Your task to perform on an android device: add a contact Image 0: 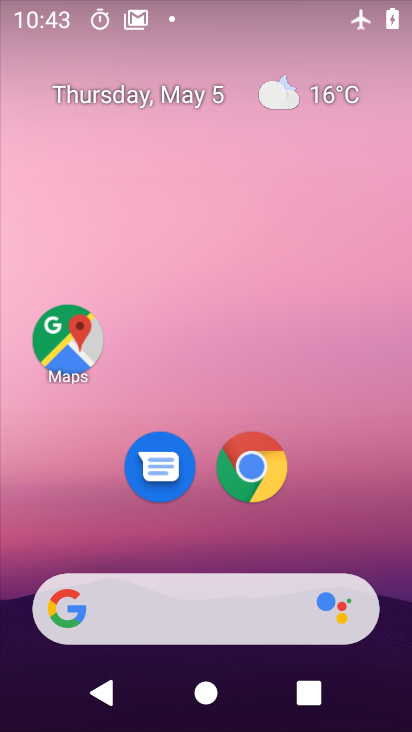
Step 0: drag from (198, 506) to (255, 73)
Your task to perform on an android device: add a contact Image 1: 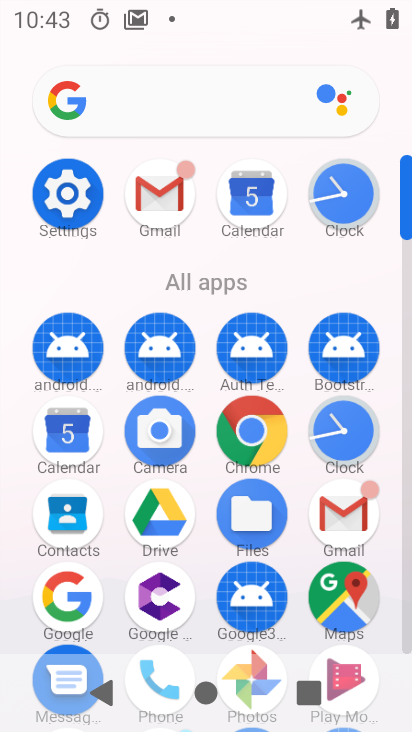
Step 1: click (80, 526)
Your task to perform on an android device: add a contact Image 2: 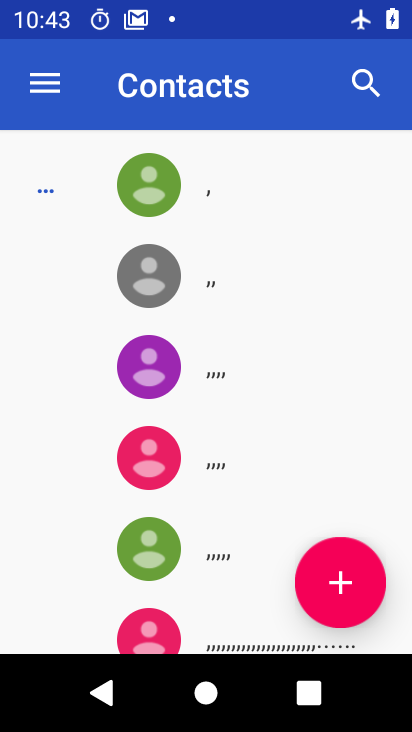
Step 2: click (334, 598)
Your task to perform on an android device: add a contact Image 3: 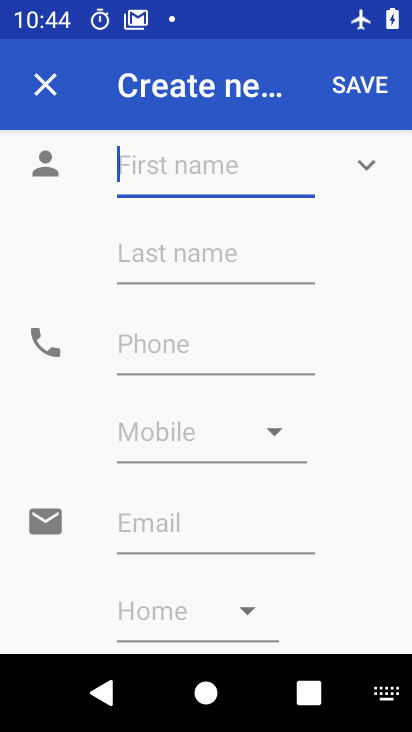
Step 3: type "qwertyuiop"
Your task to perform on an android device: add a contact Image 4: 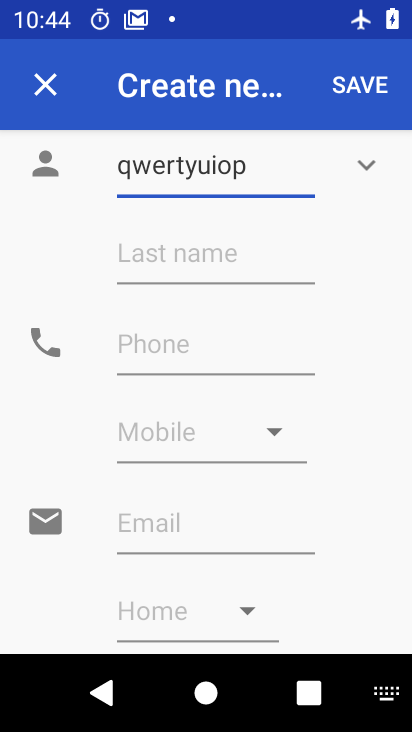
Step 4: click (196, 356)
Your task to perform on an android device: add a contact Image 5: 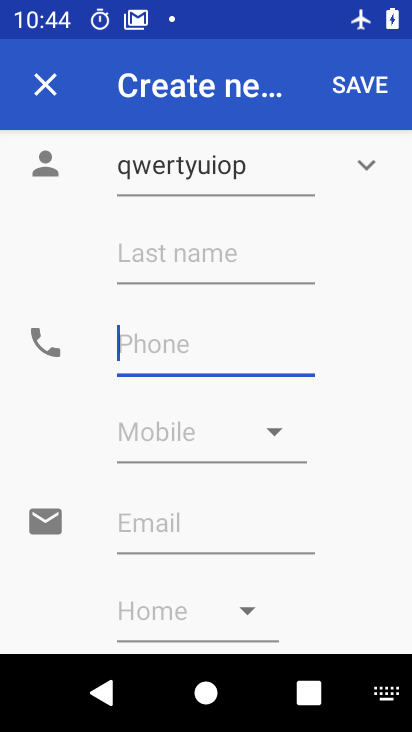
Step 5: type "123456"
Your task to perform on an android device: add a contact Image 6: 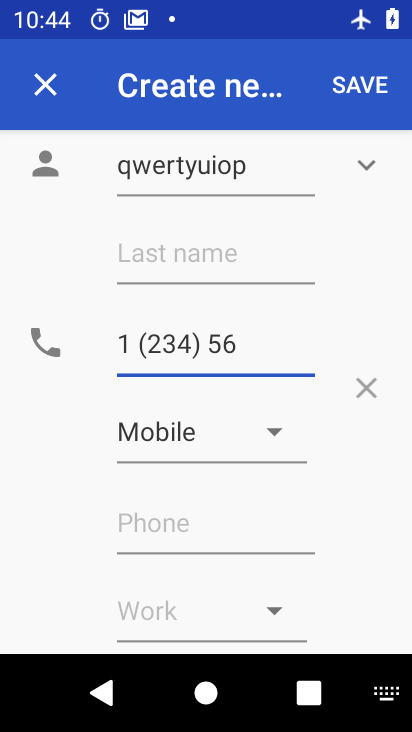
Step 6: task complete